Your task to perform on an android device: change notifications settings Image 0: 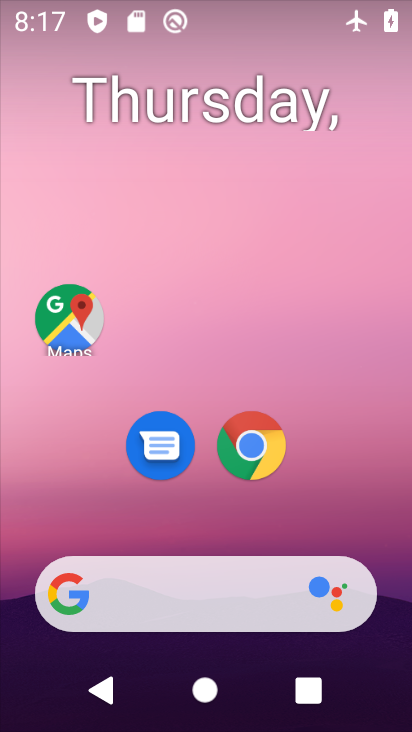
Step 0: drag from (341, 608) to (289, 228)
Your task to perform on an android device: change notifications settings Image 1: 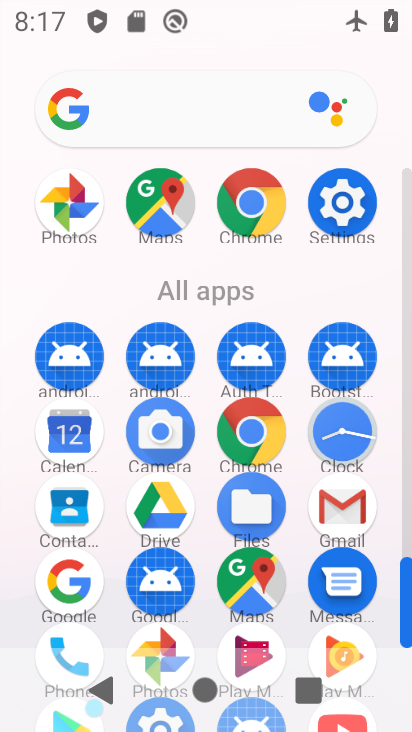
Step 1: click (335, 215)
Your task to perform on an android device: change notifications settings Image 2: 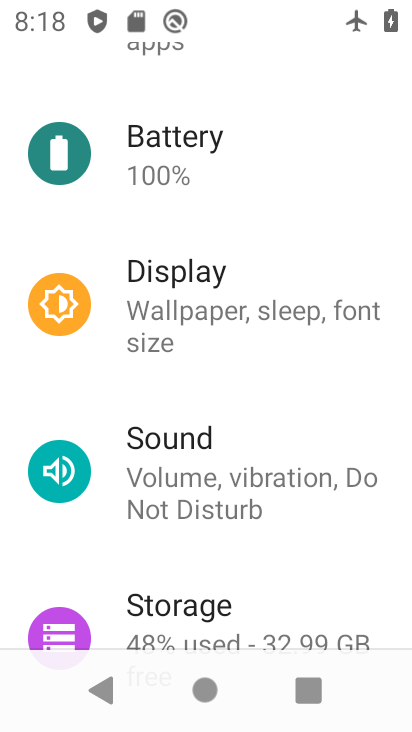
Step 2: drag from (219, 217) to (231, 568)
Your task to perform on an android device: change notifications settings Image 3: 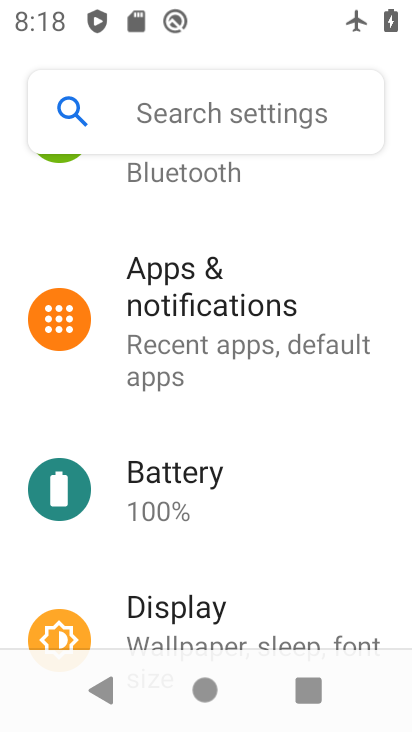
Step 3: click (182, 328)
Your task to perform on an android device: change notifications settings Image 4: 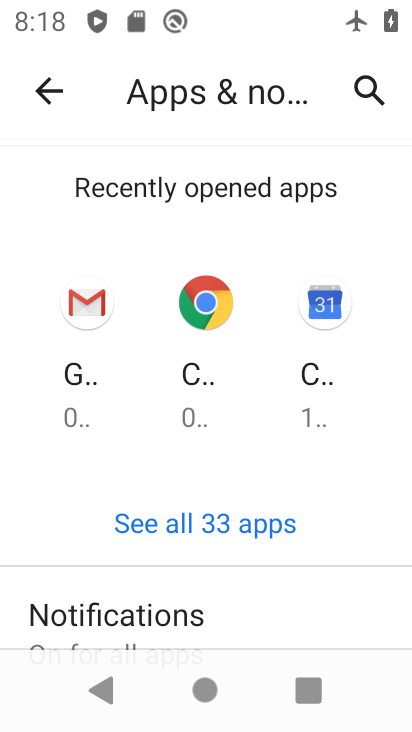
Step 4: drag from (195, 625) to (206, 309)
Your task to perform on an android device: change notifications settings Image 5: 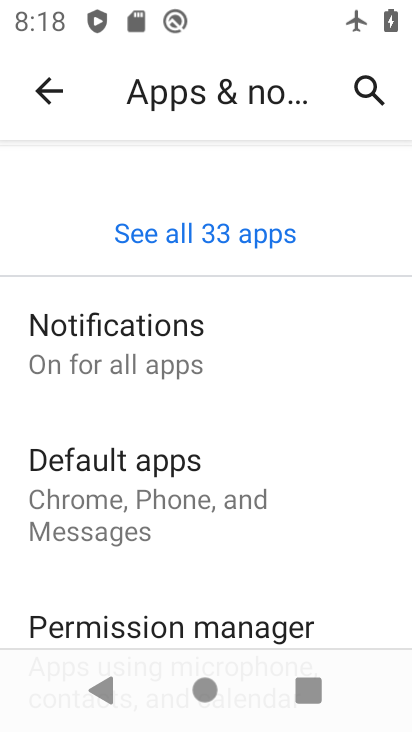
Step 5: click (158, 357)
Your task to perform on an android device: change notifications settings Image 6: 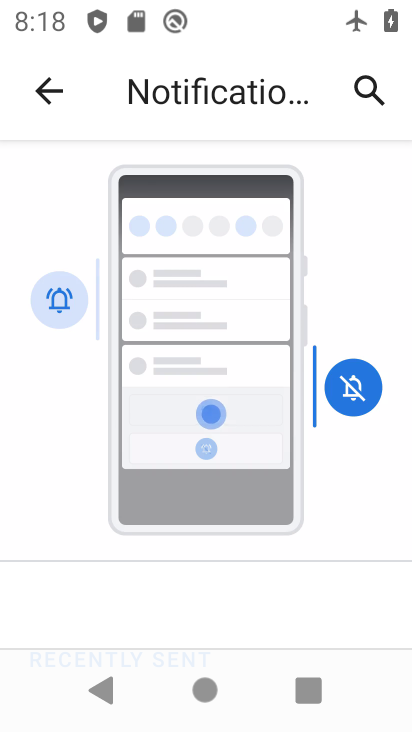
Step 6: drag from (197, 550) to (197, 261)
Your task to perform on an android device: change notifications settings Image 7: 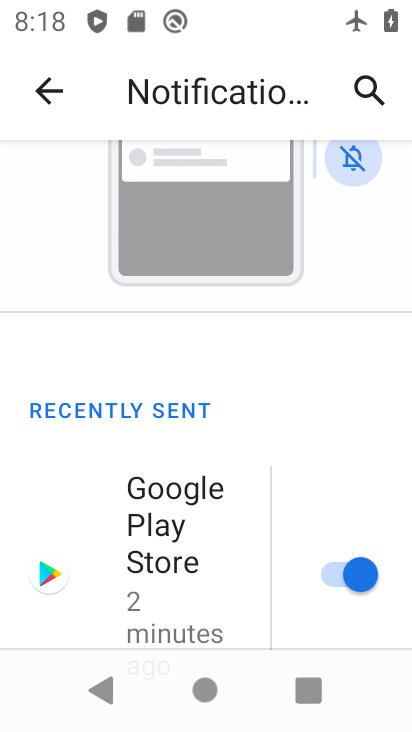
Step 7: drag from (204, 559) to (223, 390)
Your task to perform on an android device: change notifications settings Image 8: 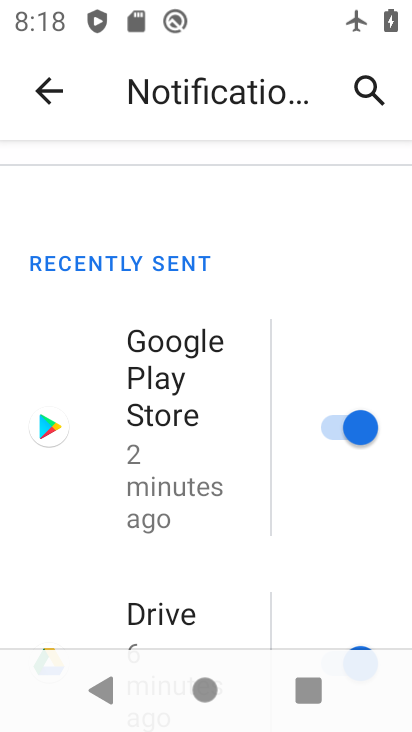
Step 8: click (356, 435)
Your task to perform on an android device: change notifications settings Image 9: 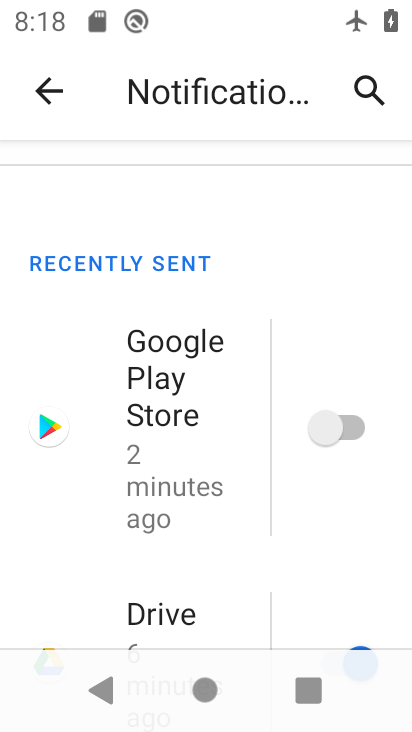
Step 9: drag from (298, 555) to (304, 273)
Your task to perform on an android device: change notifications settings Image 10: 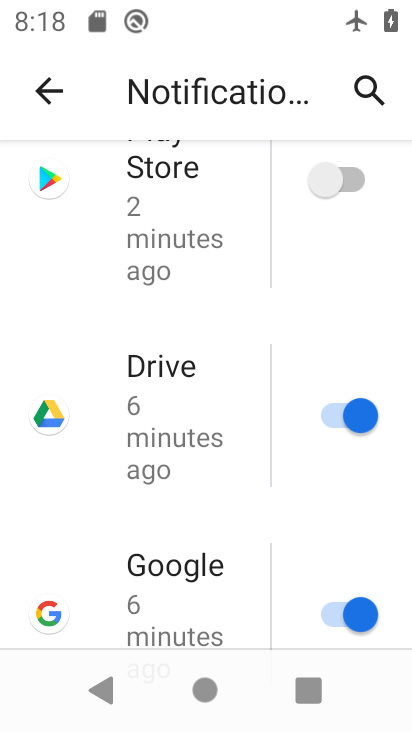
Step 10: click (345, 427)
Your task to perform on an android device: change notifications settings Image 11: 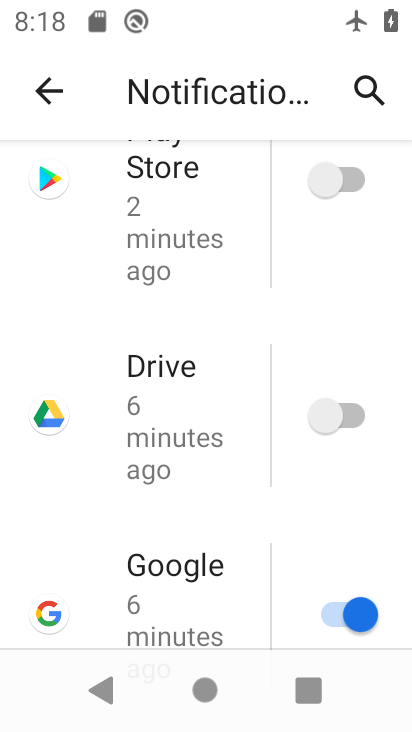
Step 11: click (356, 632)
Your task to perform on an android device: change notifications settings Image 12: 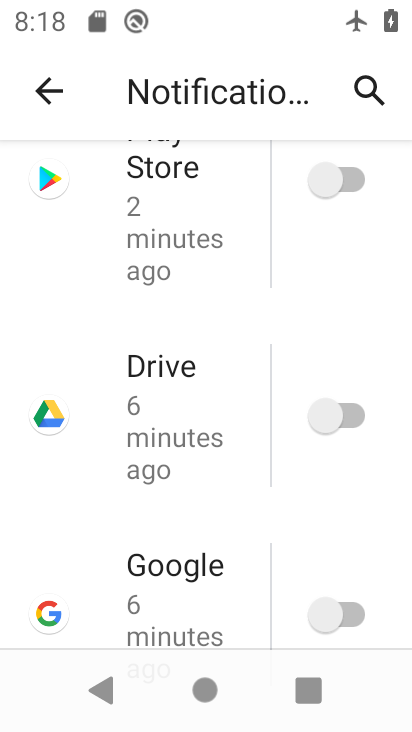
Step 12: task complete